Your task to perform on an android device: find which apps use the phone's location Image 0: 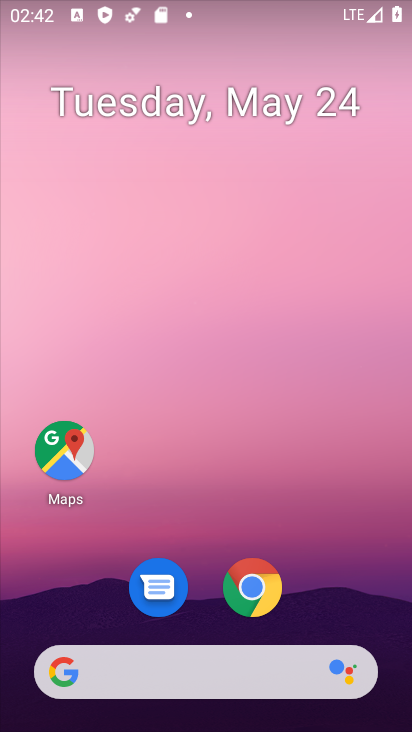
Step 0: drag from (198, 715) to (223, 91)
Your task to perform on an android device: find which apps use the phone's location Image 1: 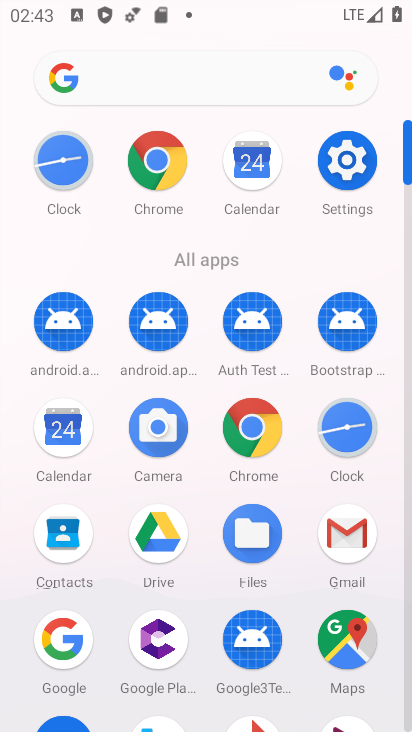
Step 1: click (360, 159)
Your task to perform on an android device: find which apps use the phone's location Image 2: 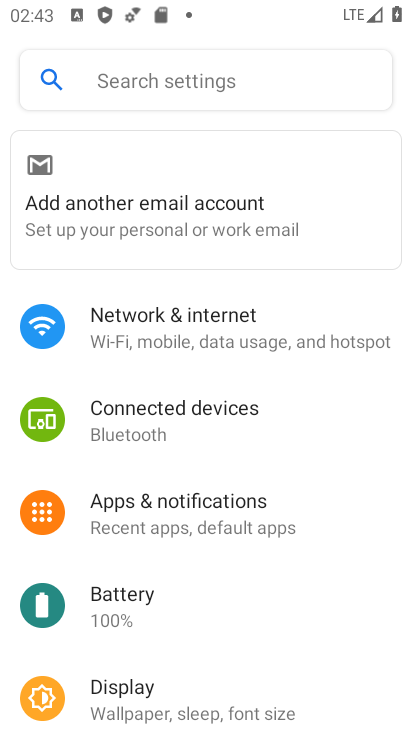
Step 2: drag from (223, 639) to (153, 111)
Your task to perform on an android device: find which apps use the phone's location Image 3: 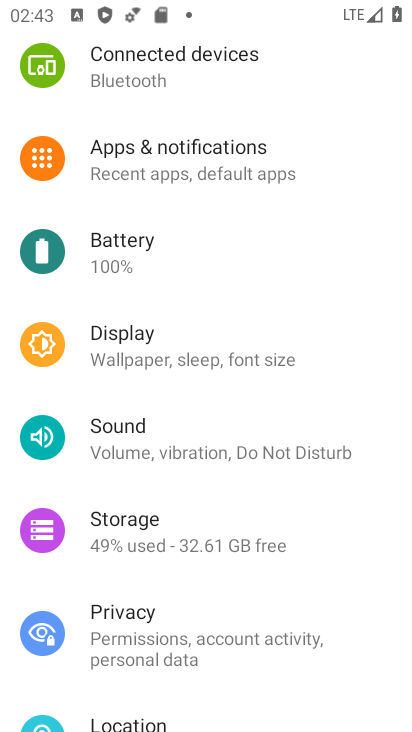
Step 3: drag from (222, 625) to (192, 195)
Your task to perform on an android device: find which apps use the phone's location Image 4: 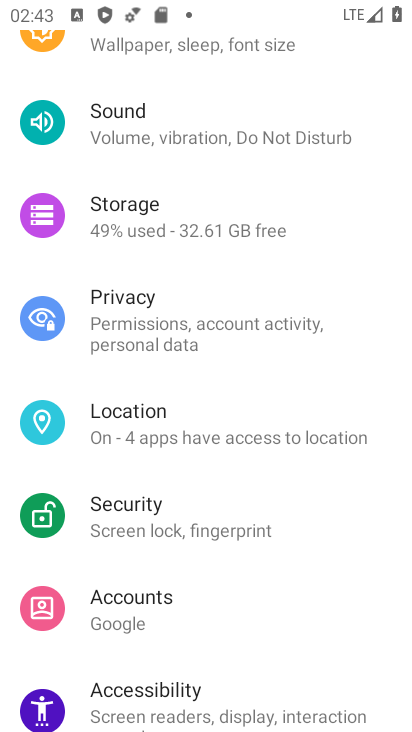
Step 4: click (152, 427)
Your task to perform on an android device: find which apps use the phone's location Image 5: 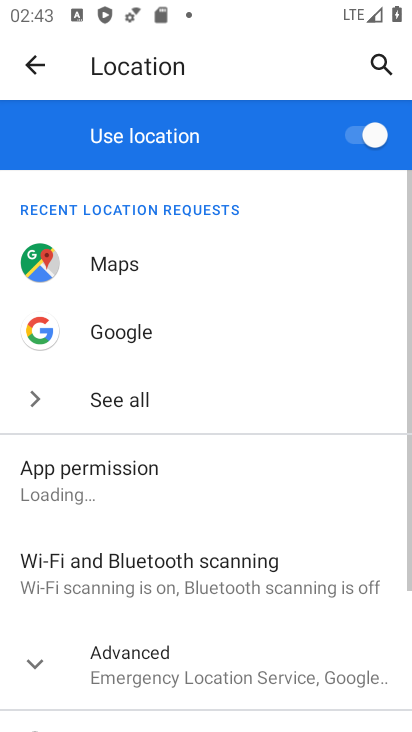
Step 5: click (127, 400)
Your task to perform on an android device: find which apps use the phone's location Image 6: 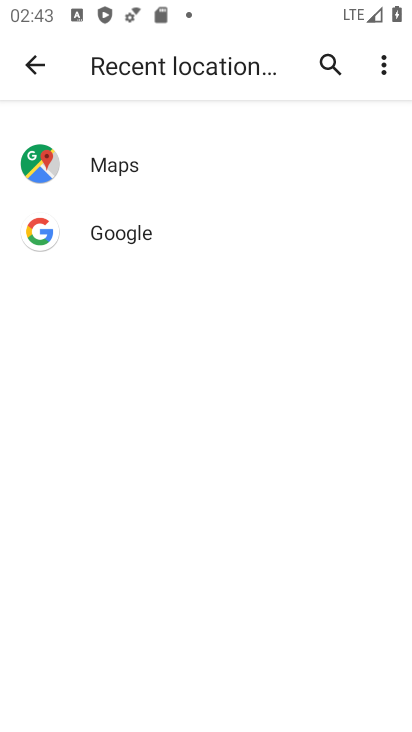
Step 6: task complete